Your task to perform on an android device: Search for macbook on ebay, select the first entry, add it to the cart, then select checkout. Image 0: 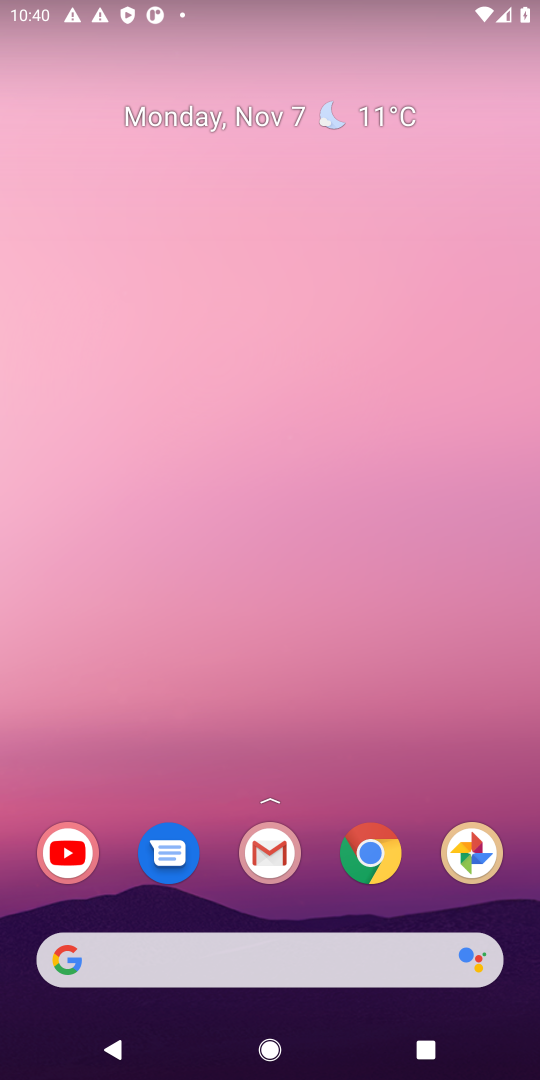
Step 0: press home button
Your task to perform on an android device: Search for macbook on ebay, select the first entry, add it to the cart, then select checkout. Image 1: 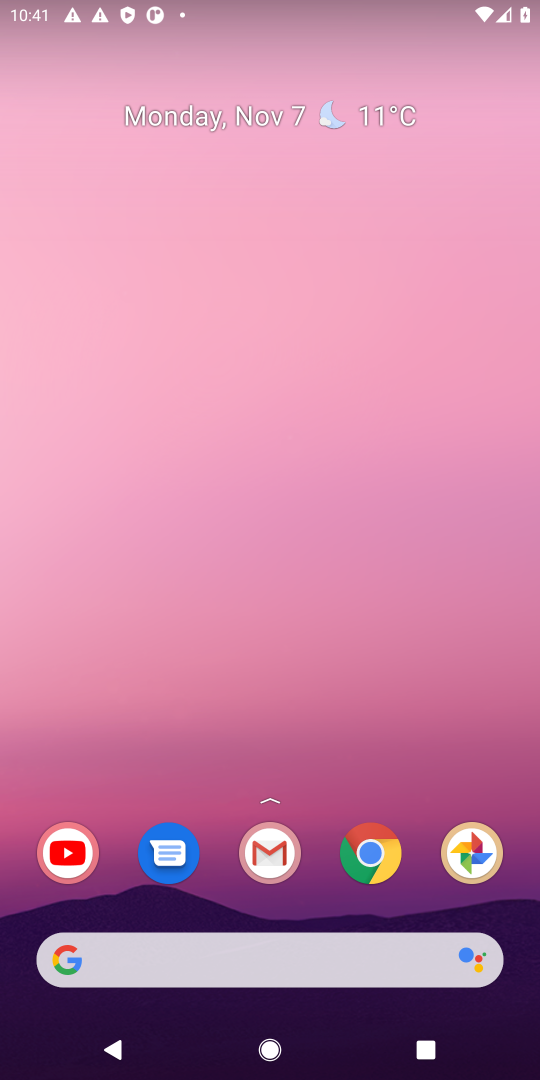
Step 1: click (226, 981)
Your task to perform on an android device: Search for macbook on ebay, select the first entry, add it to the cart, then select checkout. Image 2: 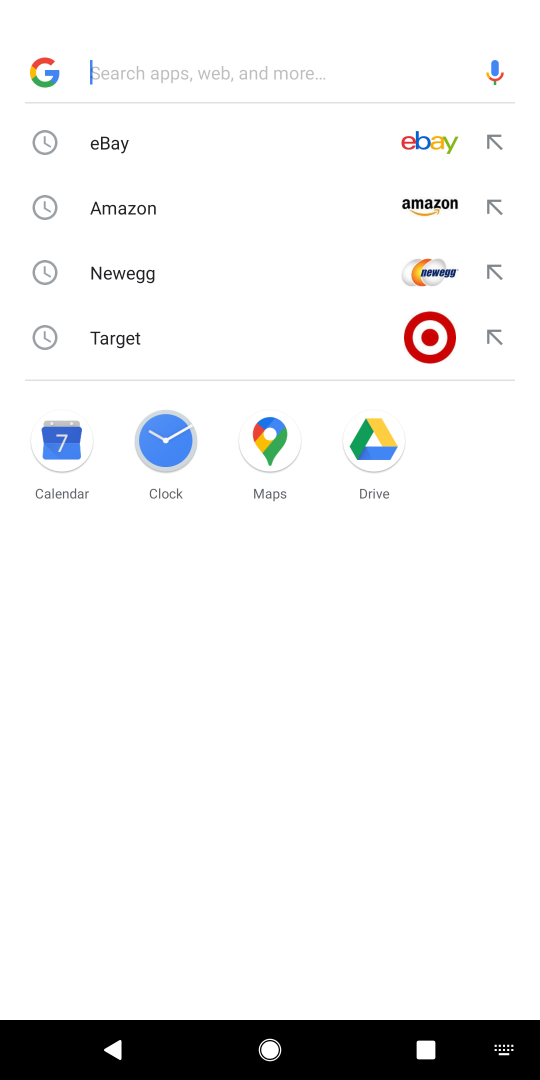
Step 2: click (227, 124)
Your task to perform on an android device: Search for macbook on ebay, select the first entry, add it to the cart, then select checkout. Image 3: 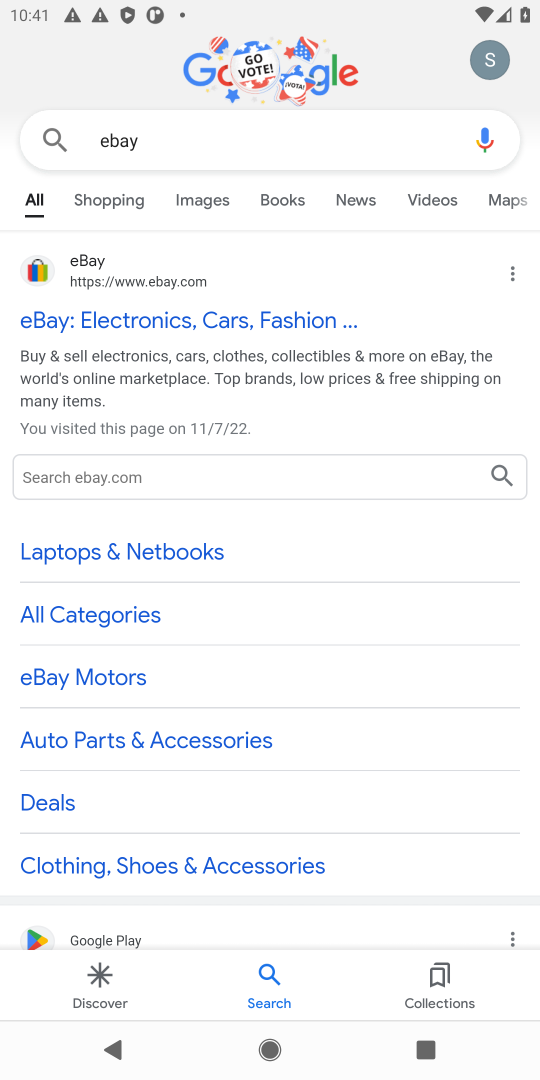
Step 3: click (114, 340)
Your task to perform on an android device: Search for macbook on ebay, select the first entry, add it to the cart, then select checkout. Image 4: 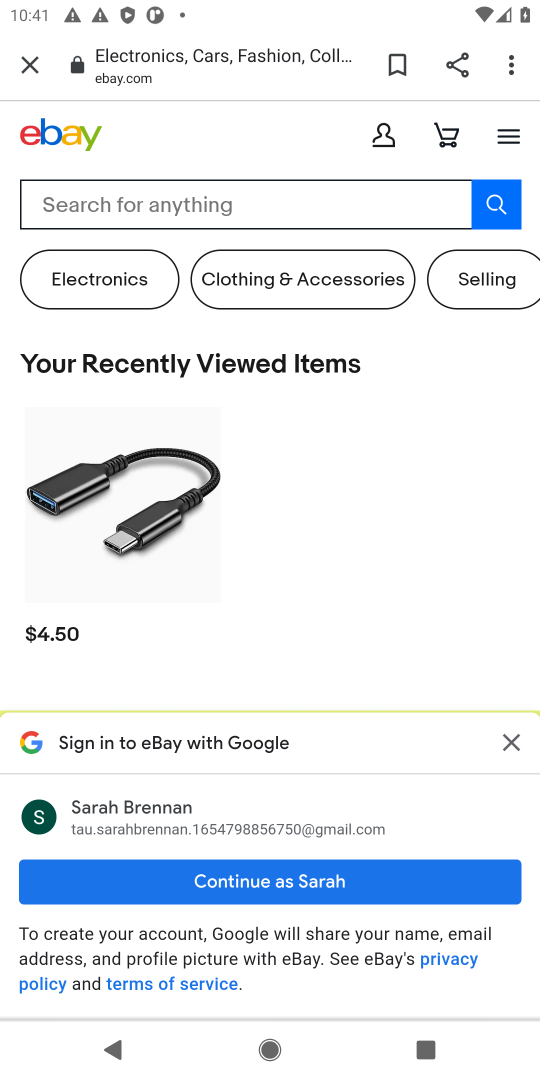
Step 4: task complete